Your task to perform on an android device: all mails in gmail Image 0: 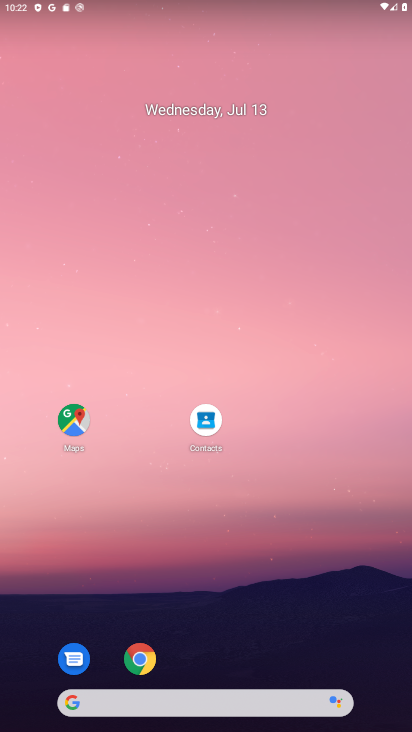
Step 0: drag from (183, 640) to (194, 207)
Your task to perform on an android device: all mails in gmail Image 1: 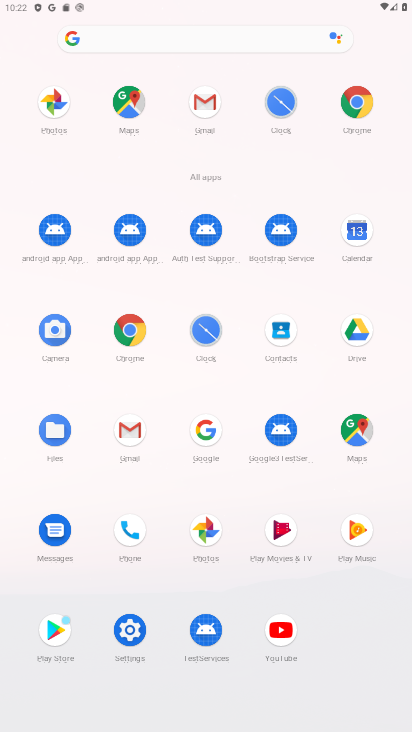
Step 1: drag from (206, 101) to (146, 352)
Your task to perform on an android device: all mails in gmail Image 2: 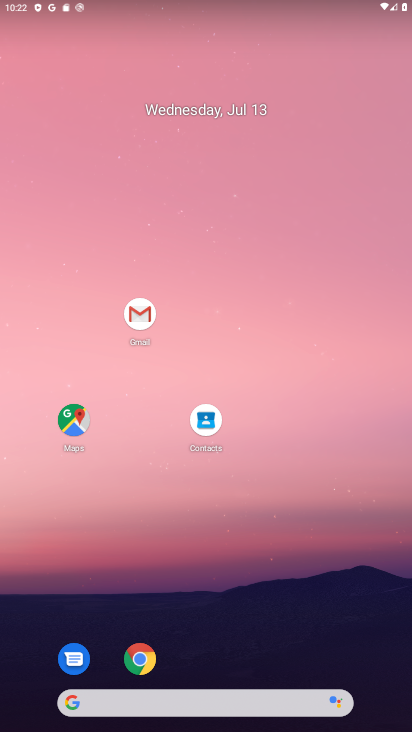
Step 2: click (136, 307)
Your task to perform on an android device: all mails in gmail Image 3: 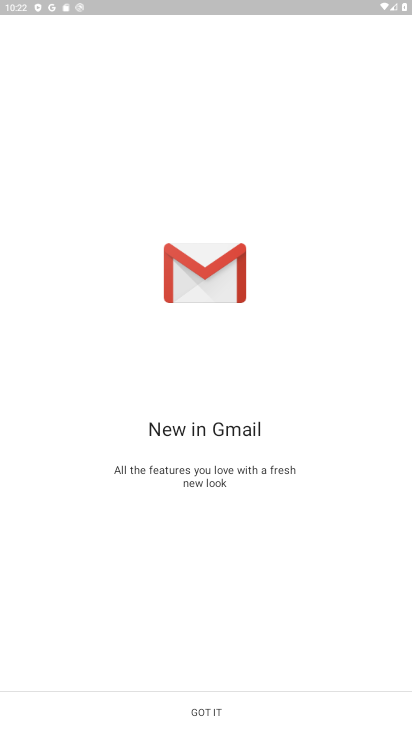
Step 3: click (226, 706)
Your task to perform on an android device: all mails in gmail Image 4: 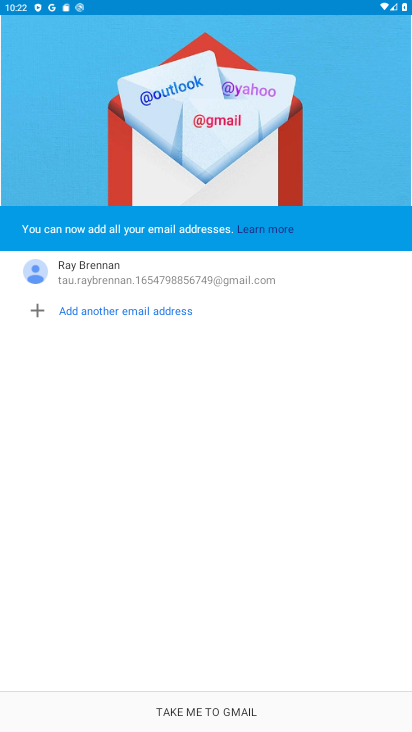
Step 4: click (246, 713)
Your task to perform on an android device: all mails in gmail Image 5: 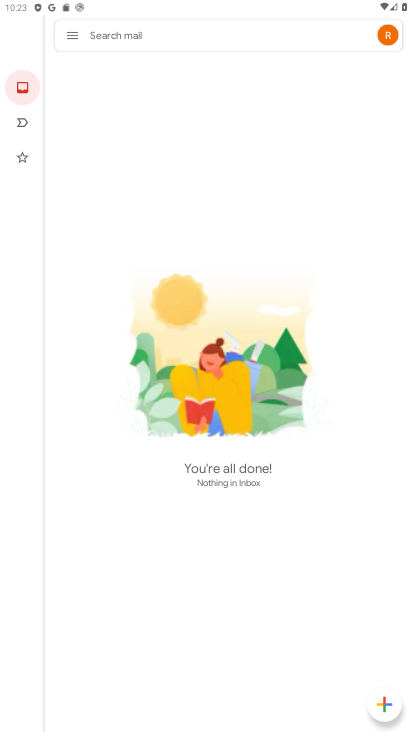
Step 5: click (65, 35)
Your task to perform on an android device: all mails in gmail Image 6: 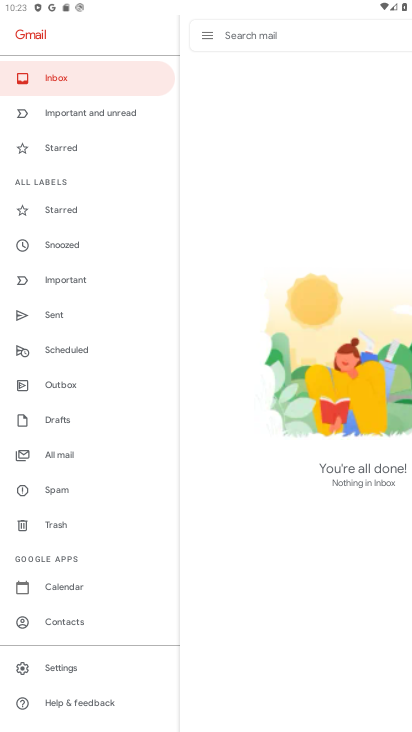
Step 6: click (77, 448)
Your task to perform on an android device: all mails in gmail Image 7: 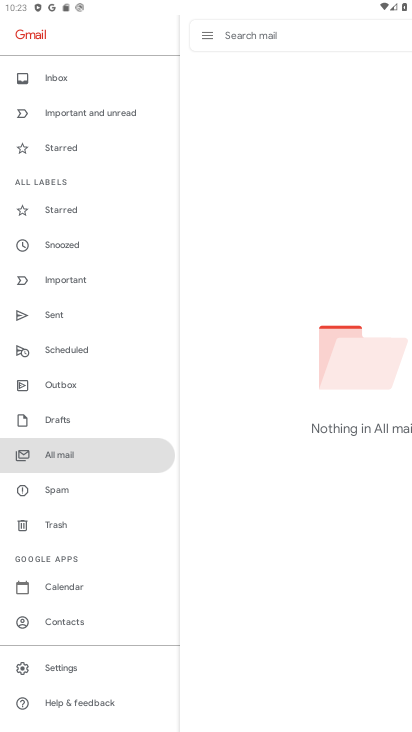
Step 7: task complete